Your task to perform on an android device: What's the weather going to be tomorrow? Image 0: 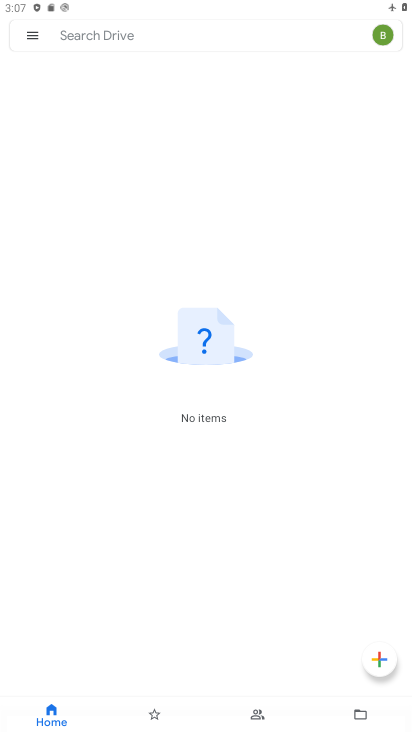
Step 0: press home button
Your task to perform on an android device: What's the weather going to be tomorrow? Image 1: 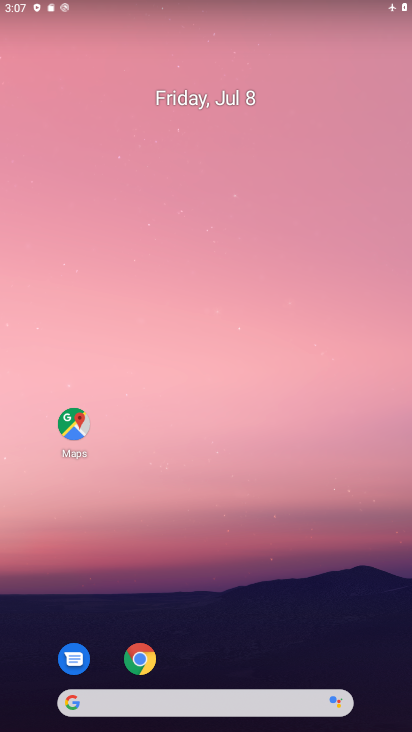
Step 1: click (110, 699)
Your task to perform on an android device: What's the weather going to be tomorrow? Image 2: 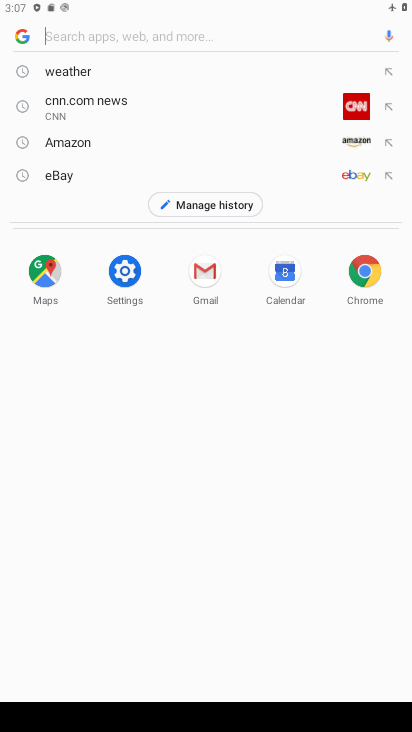
Step 2: click (83, 71)
Your task to perform on an android device: What's the weather going to be tomorrow? Image 3: 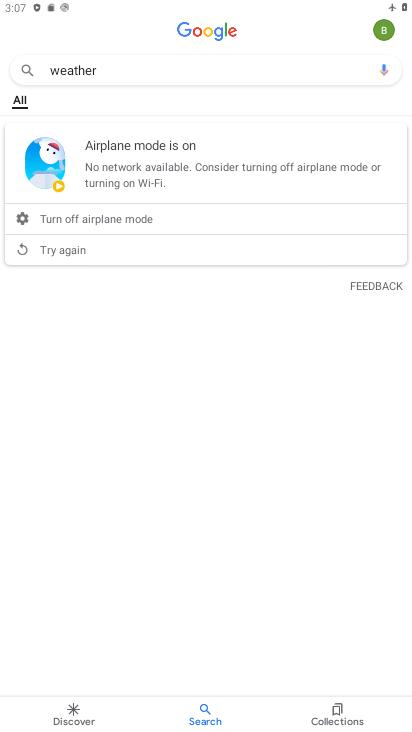
Step 3: task complete